Your task to perform on an android device: empty trash in google photos Image 0: 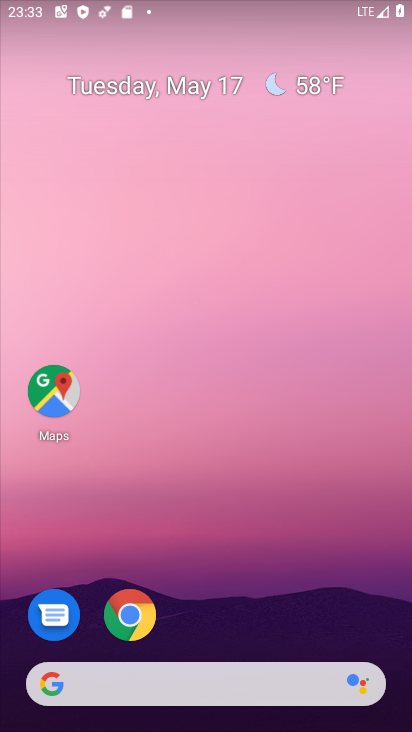
Step 0: drag from (216, 616) to (216, 124)
Your task to perform on an android device: empty trash in google photos Image 1: 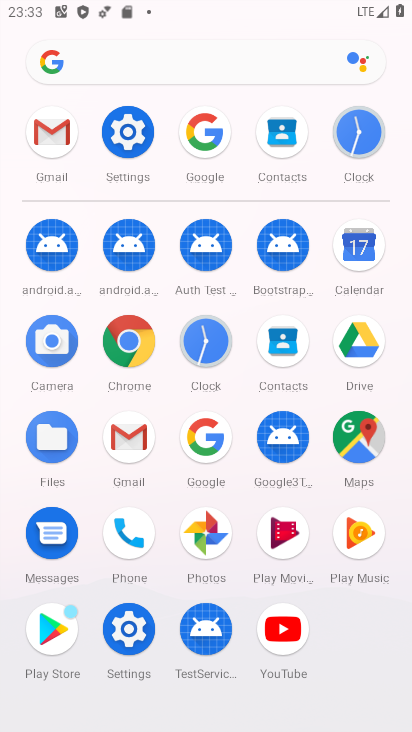
Step 1: click (221, 539)
Your task to perform on an android device: empty trash in google photos Image 2: 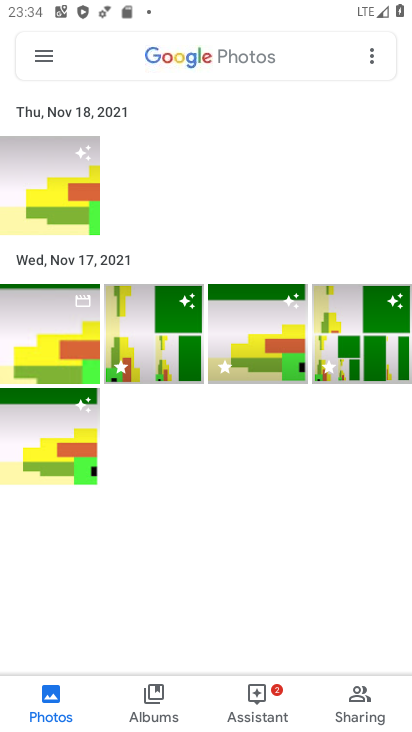
Step 2: click (31, 53)
Your task to perform on an android device: empty trash in google photos Image 3: 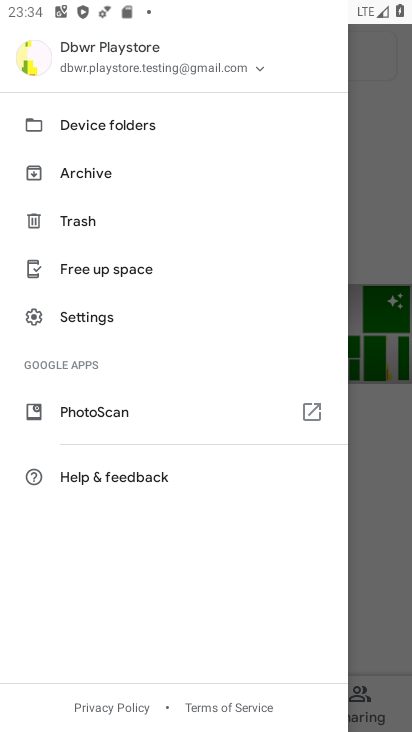
Step 3: click (113, 223)
Your task to perform on an android device: empty trash in google photos Image 4: 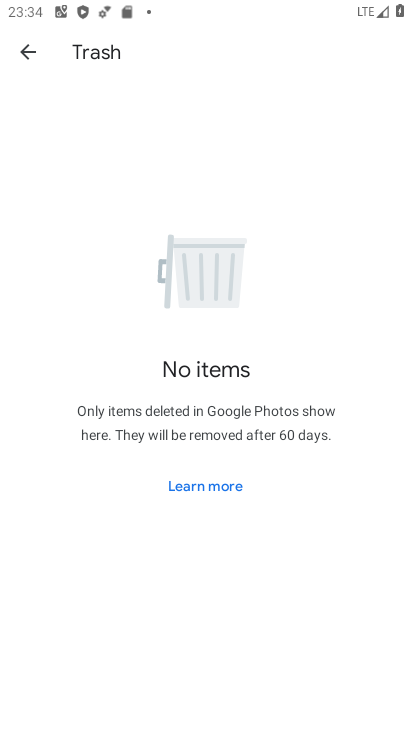
Step 4: task complete